Your task to perform on an android device: Open calendar and show me the third week of next month Image 0: 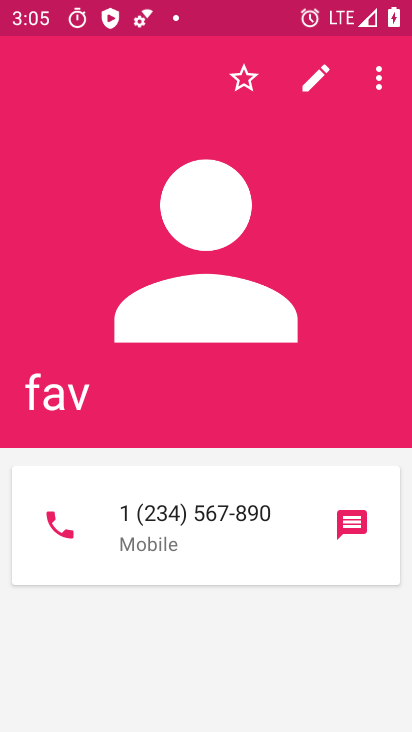
Step 0: press home button
Your task to perform on an android device: Open calendar and show me the third week of next month Image 1: 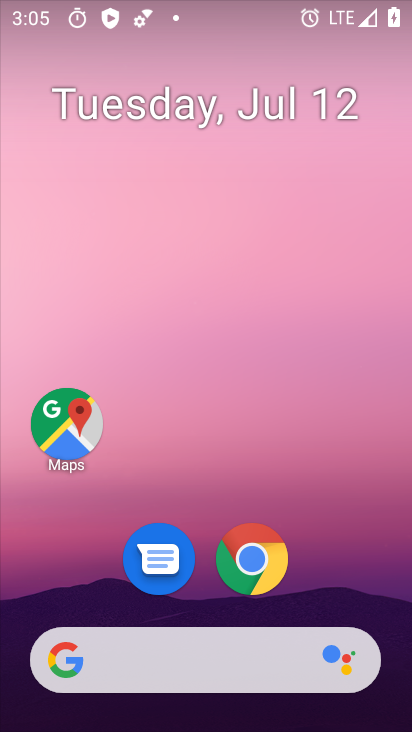
Step 1: drag from (358, 571) to (370, 201)
Your task to perform on an android device: Open calendar and show me the third week of next month Image 2: 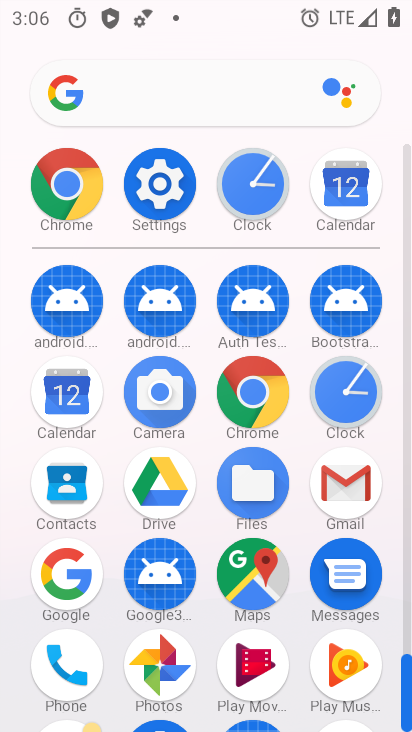
Step 2: click (62, 404)
Your task to perform on an android device: Open calendar and show me the third week of next month Image 3: 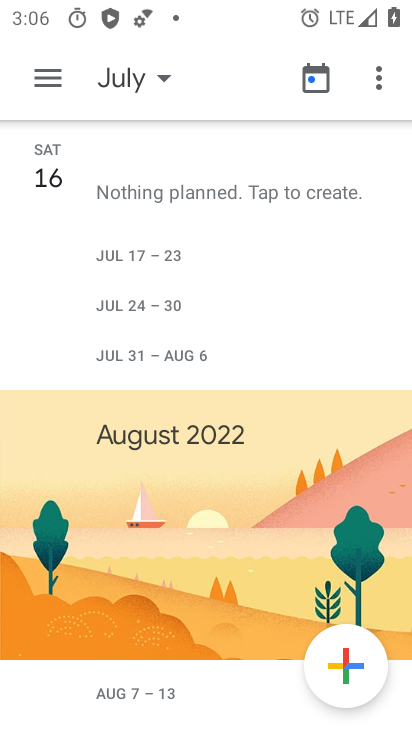
Step 3: click (160, 79)
Your task to perform on an android device: Open calendar and show me the third week of next month Image 4: 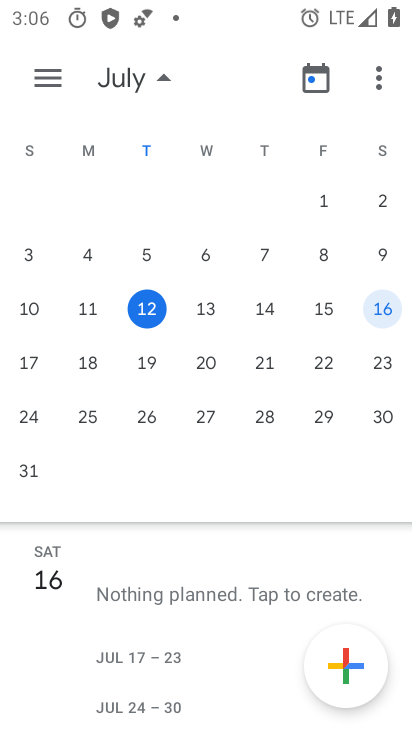
Step 4: drag from (380, 179) to (5, 186)
Your task to perform on an android device: Open calendar and show me the third week of next month Image 5: 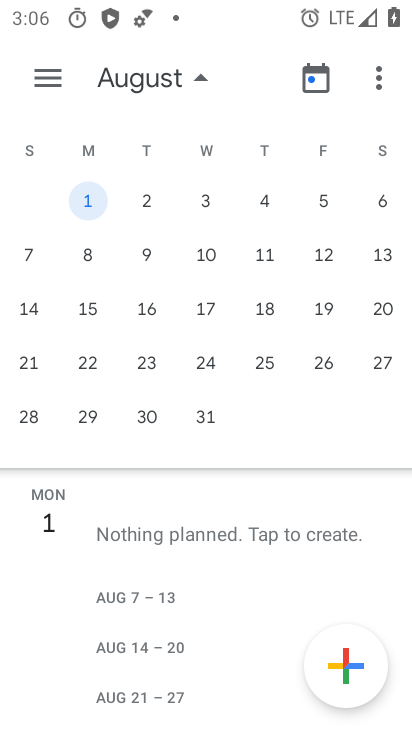
Step 5: click (98, 308)
Your task to perform on an android device: Open calendar and show me the third week of next month Image 6: 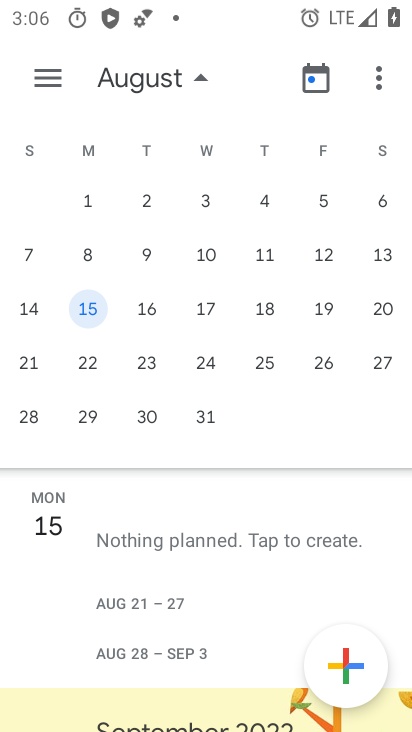
Step 6: task complete